Your task to perform on an android device: Check the weather Image 0: 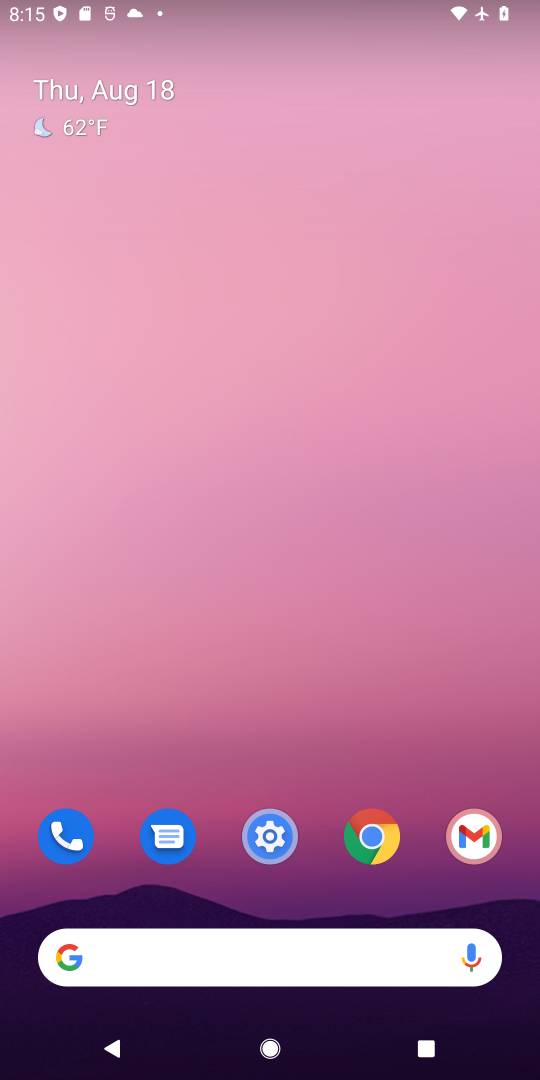
Step 0: click (79, 123)
Your task to perform on an android device: Check the weather Image 1: 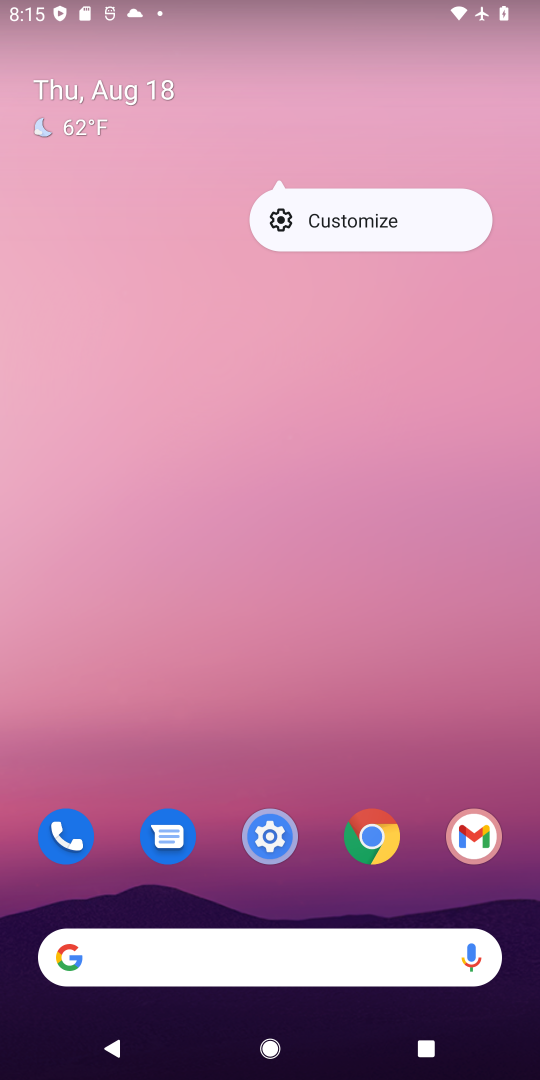
Step 1: click (79, 123)
Your task to perform on an android device: Check the weather Image 2: 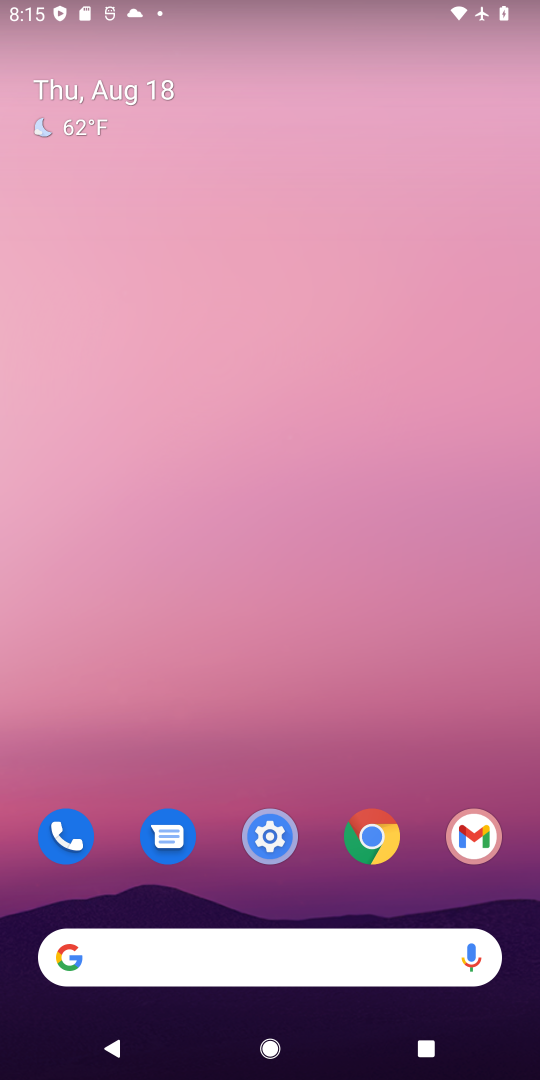
Step 2: click (79, 110)
Your task to perform on an android device: Check the weather Image 3: 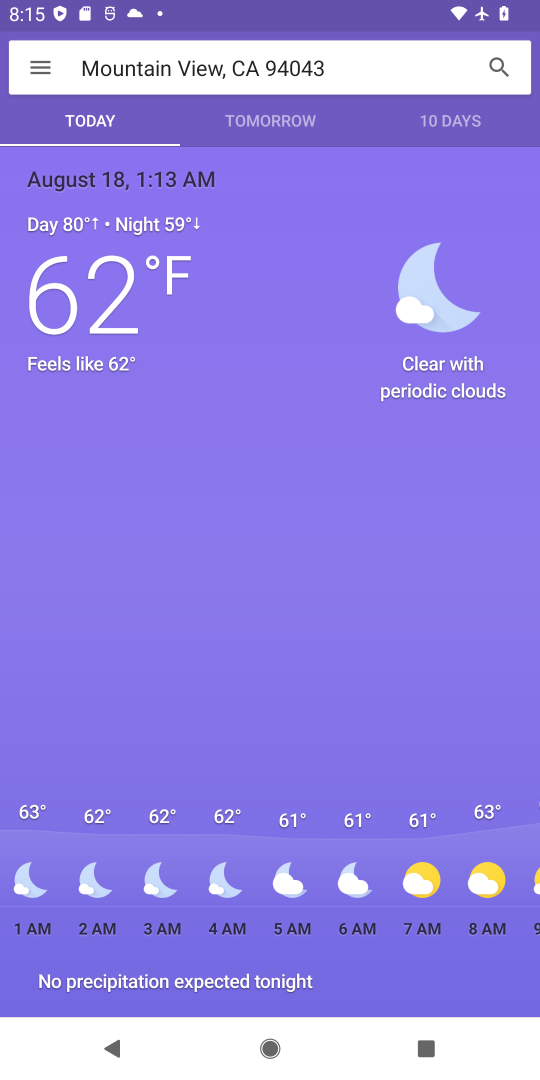
Step 3: task complete